Your task to perform on an android device: Go to Google maps Image 0: 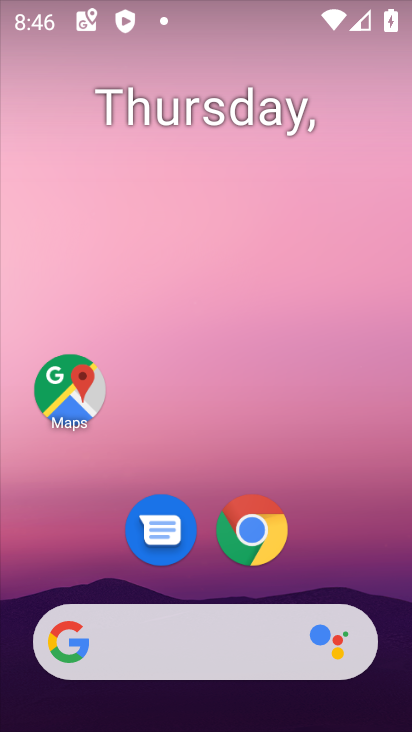
Step 0: drag from (275, 591) to (262, 165)
Your task to perform on an android device: Go to Google maps Image 1: 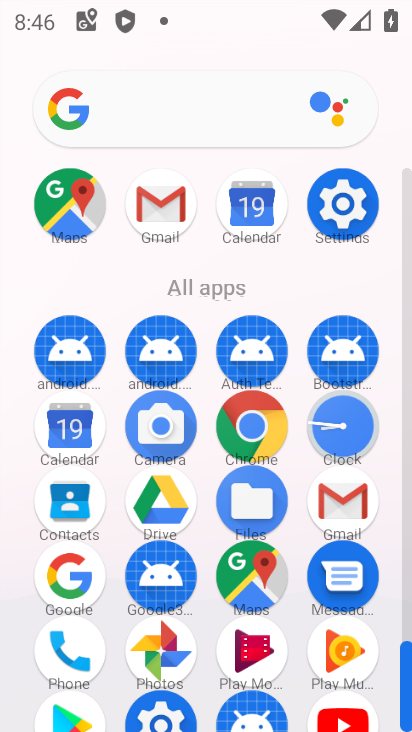
Step 1: drag from (238, 530) to (254, 278)
Your task to perform on an android device: Go to Google maps Image 2: 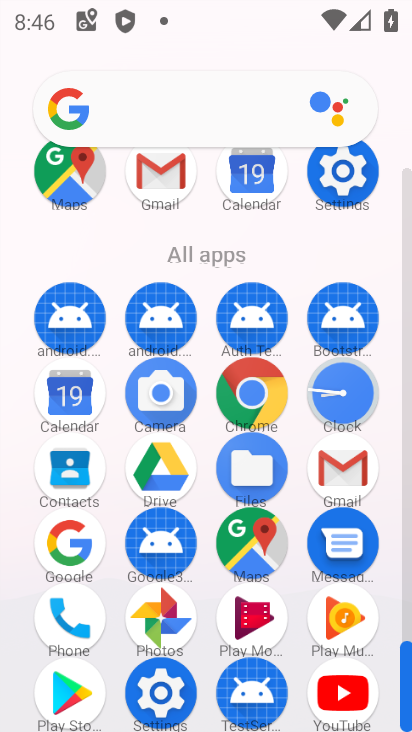
Step 2: click (269, 544)
Your task to perform on an android device: Go to Google maps Image 3: 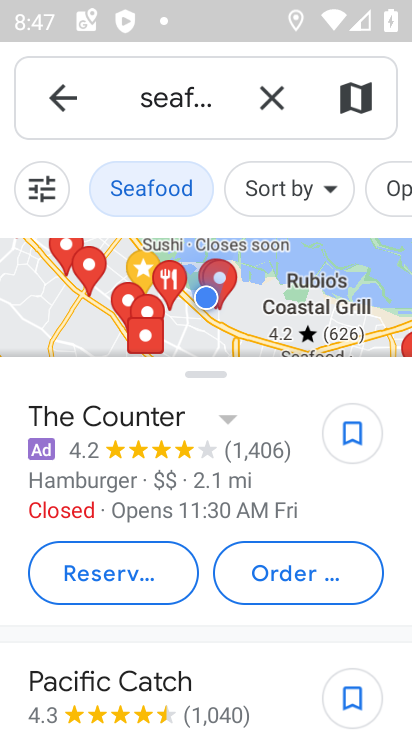
Step 3: task complete